Your task to perform on an android device: turn off translation in the chrome app Image 0: 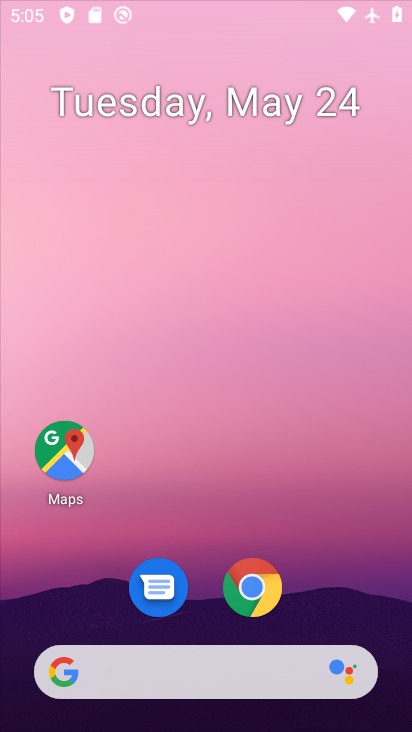
Step 0: press home button
Your task to perform on an android device: turn off translation in the chrome app Image 1: 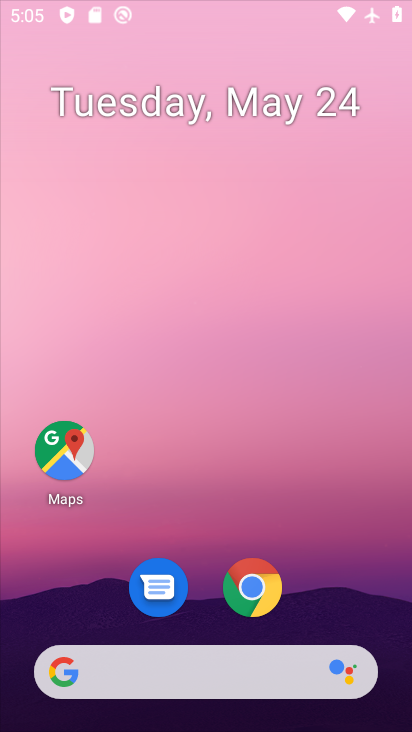
Step 1: click (259, 604)
Your task to perform on an android device: turn off translation in the chrome app Image 2: 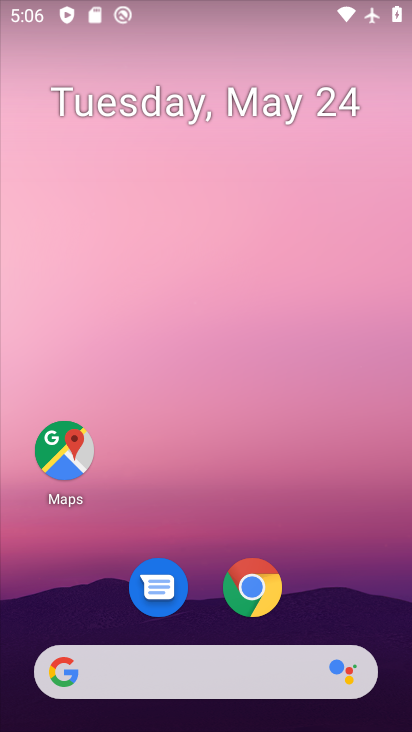
Step 2: click (266, 588)
Your task to perform on an android device: turn off translation in the chrome app Image 3: 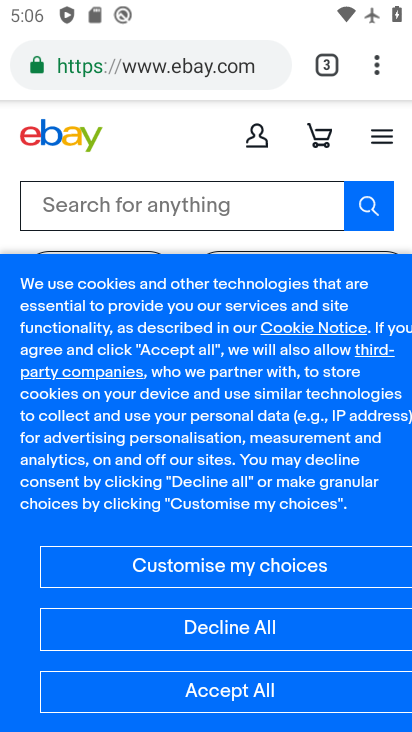
Step 3: click (379, 68)
Your task to perform on an android device: turn off translation in the chrome app Image 4: 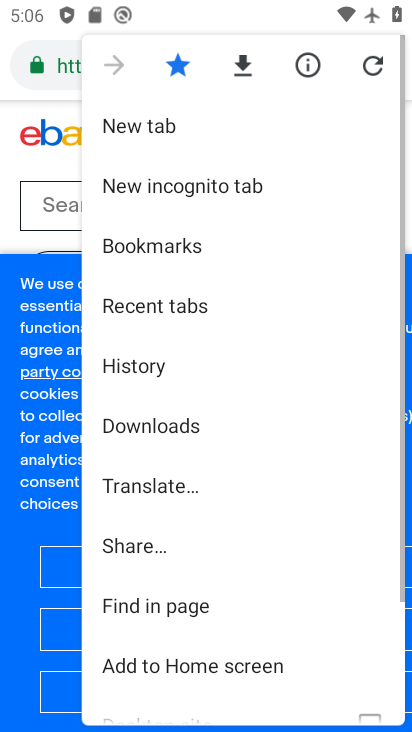
Step 4: drag from (255, 524) to (229, 74)
Your task to perform on an android device: turn off translation in the chrome app Image 5: 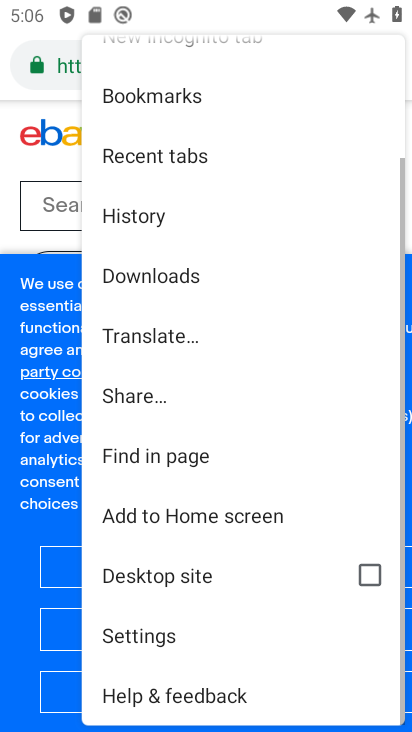
Step 5: click (237, 634)
Your task to perform on an android device: turn off translation in the chrome app Image 6: 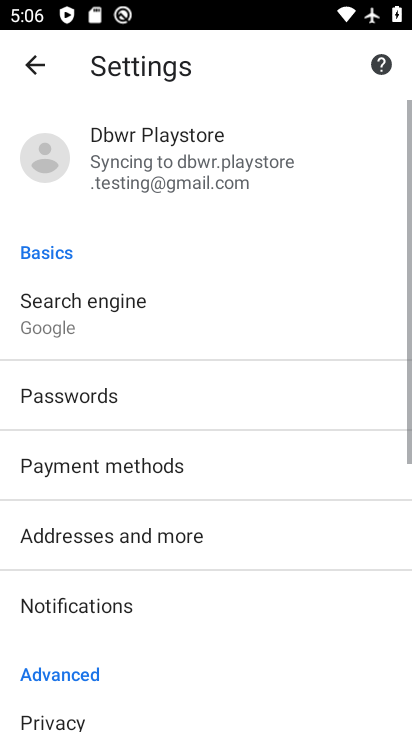
Step 6: drag from (209, 631) to (208, 118)
Your task to perform on an android device: turn off translation in the chrome app Image 7: 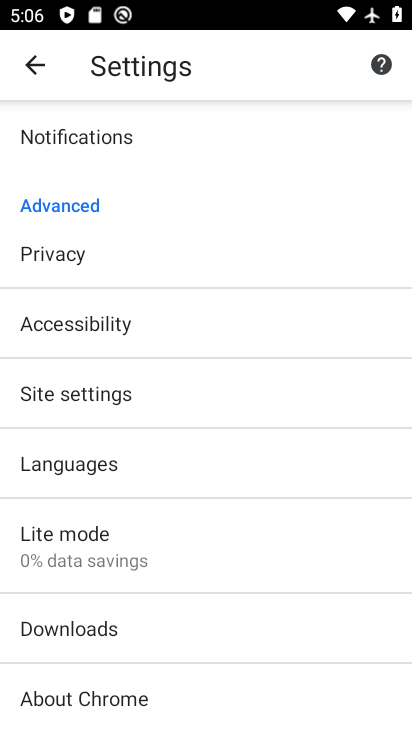
Step 7: click (194, 460)
Your task to perform on an android device: turn off translation in the chrome app Image 8: 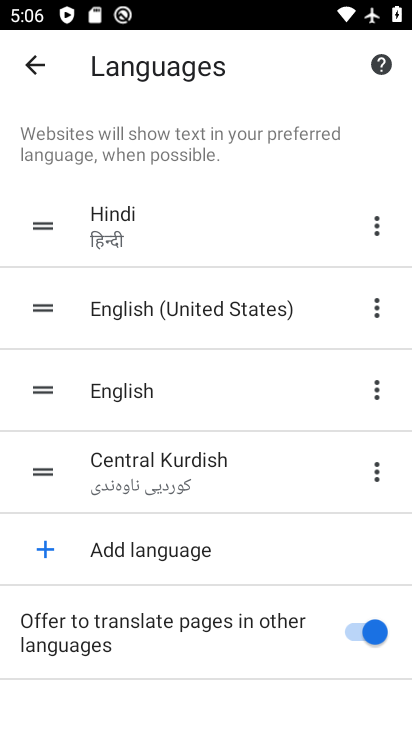
Step 8: click (372, 630)
Your task to perform on an android device: turn off translation in the chrome app Image 9: 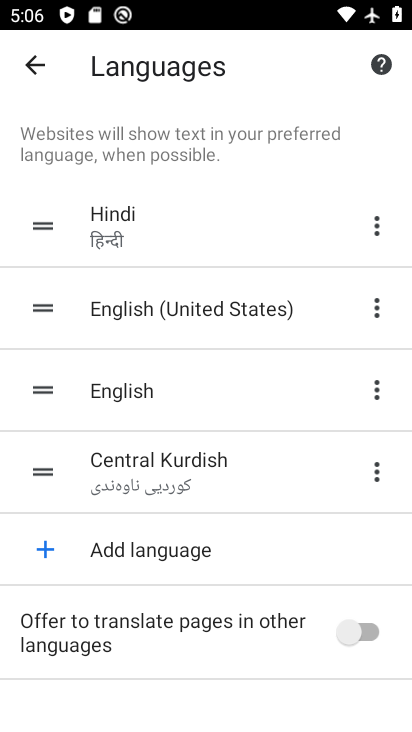
Step 9: task complete